Your task to perform on an android device: find snoozed emails in the gmail app Image 0: 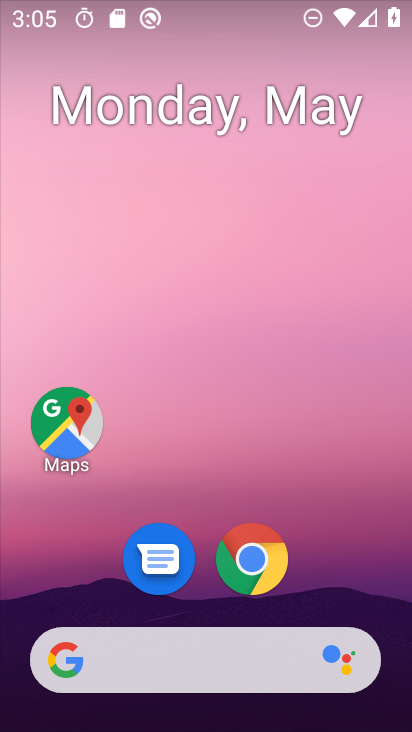
Step 0: drag from (183, 595) to (274, 343)
Your task to perform on an android device: find snoozed emails in the gmail app Image 1: 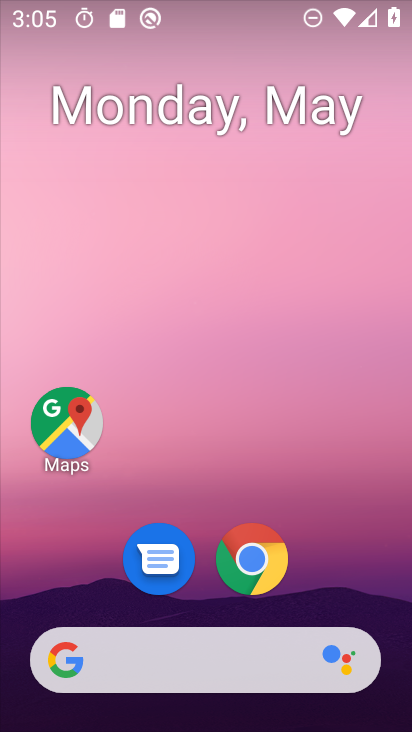
Step 1: drag from (195, 629) to (269, 243)
Your task to perform on an android device: find snoozed emails in the gmail app Image 2: 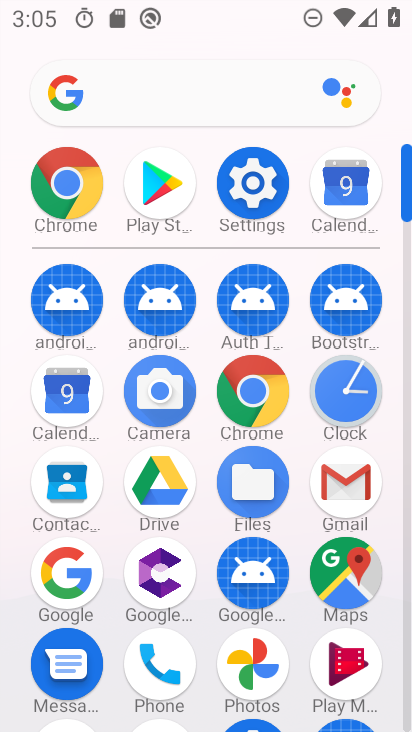
Step 2: click (349, 487)
Your task to perform on an android device: find snoozed emails in the gmail app Image 3: 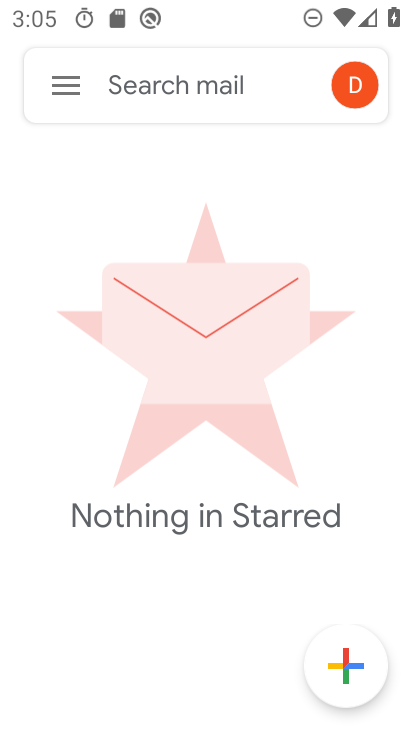
Step 3: click (73, 86)
Your task to perform on an android device: find snoozed emails in the gmail app Image 4: 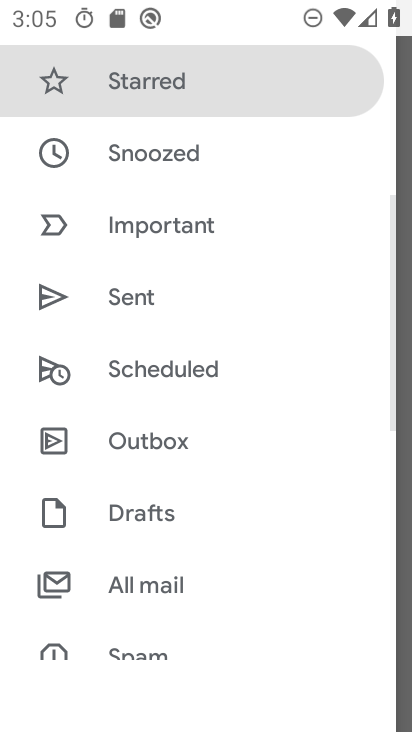
Step 4: click (185, 153)
Your task to perform on an android device: find snoozed emails in the gmail app Image 5: 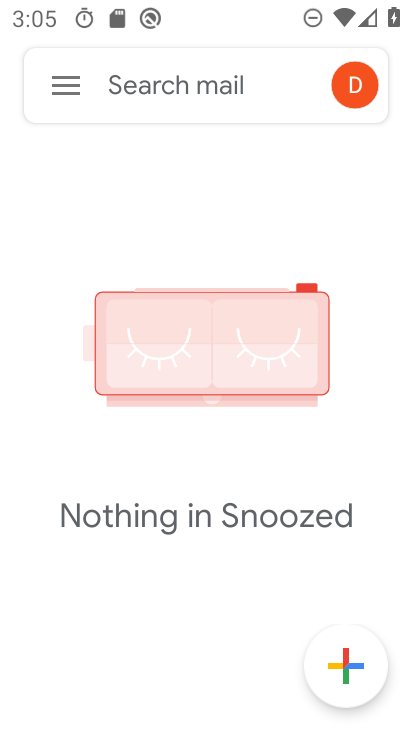
Step 5: task complete